Your task to perform on an android device: When is my next appointment? Image 0: 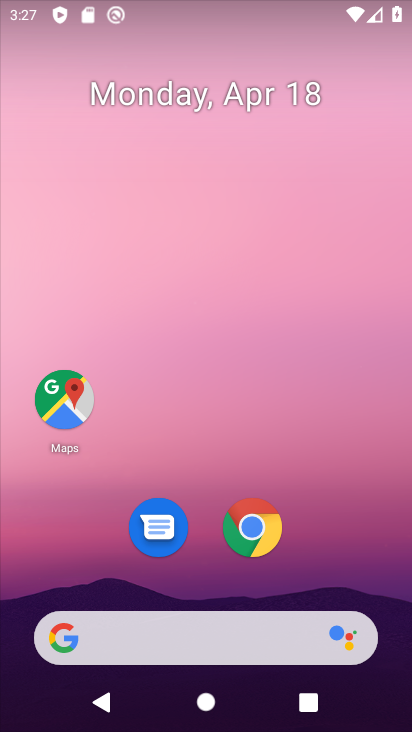
Step 0: drag from (266, 638) to (286, 66)
Your task to perform on an android device: When is my next appointment? Image 1: 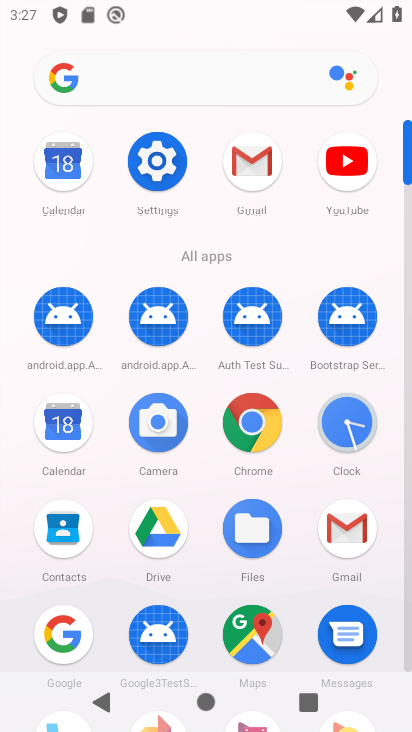
Step 1: click (73, 435)
Your task to perform on an android device: When is my next appointment? Image 2: 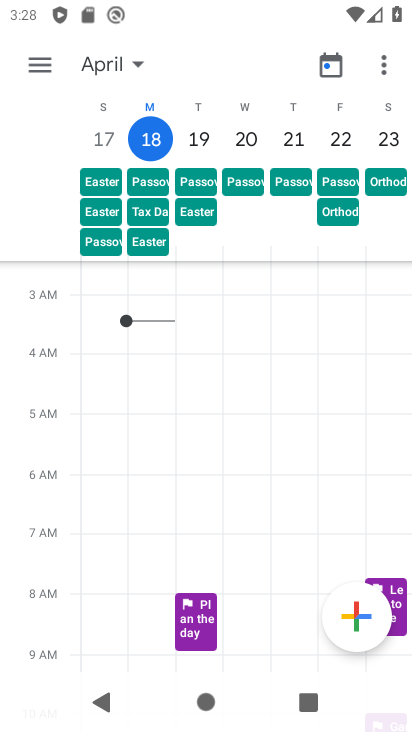
Step 2: click (33, 54)
Your task to perform on an android device: When is my next appointment? Image 3: 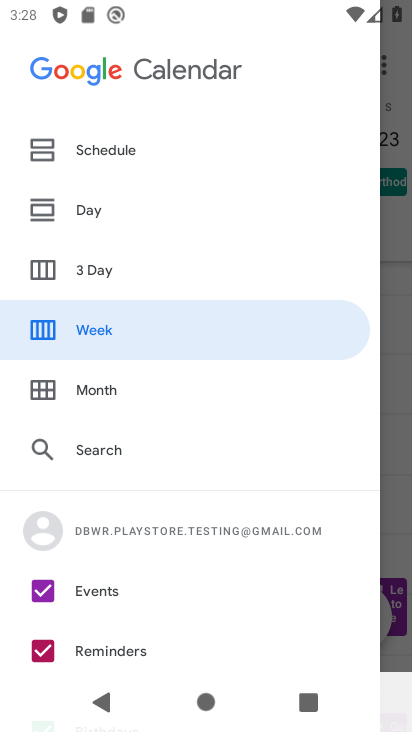
Step 3: click (95, 331)
Your task to perform on an android device: When is my next appointment? Image 4: 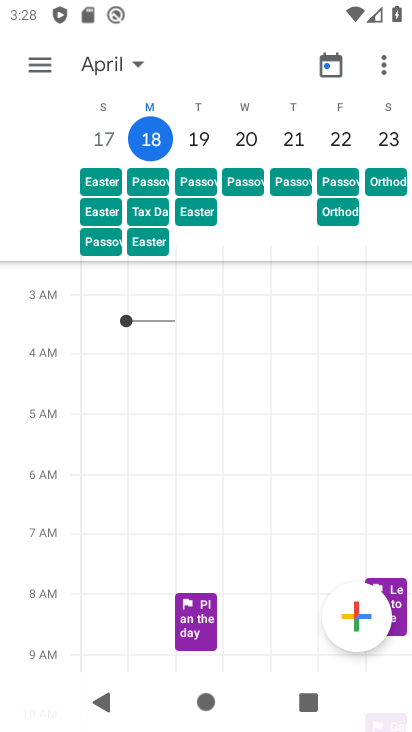
Step 4: task complete